Your task to perform on an android device: View the shopping cart on bestbuy.com. Add jbl charge 4 to the cart on bestbuy.com Image 0: 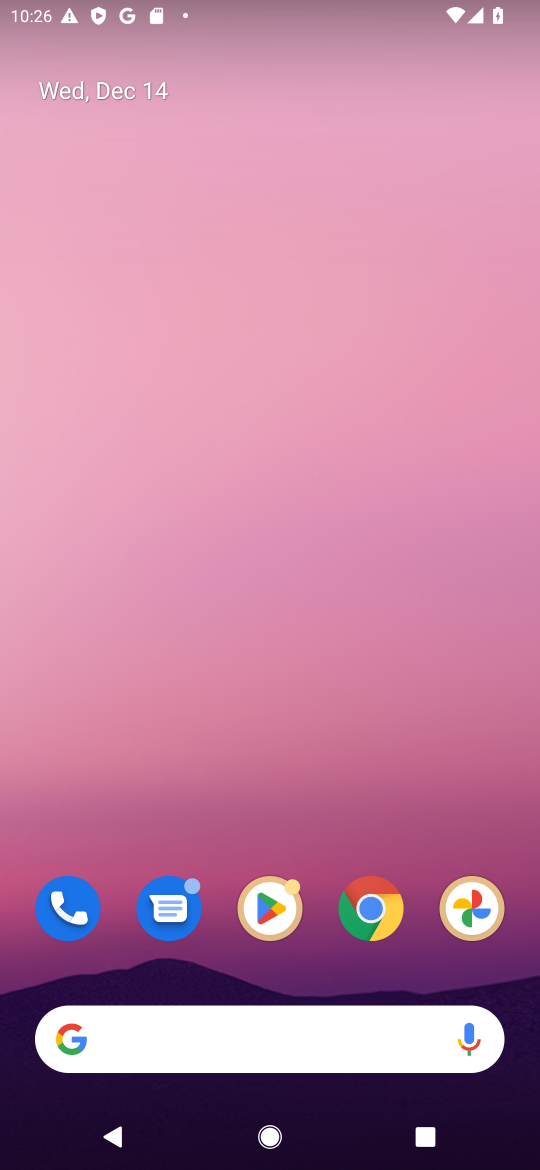
Step 0: click (356, 924)
Your task to perform on an android device: View the shopping cart on bestbuy.com. Add jbl charge 4 to the cart on bestbuy.com Image 1: 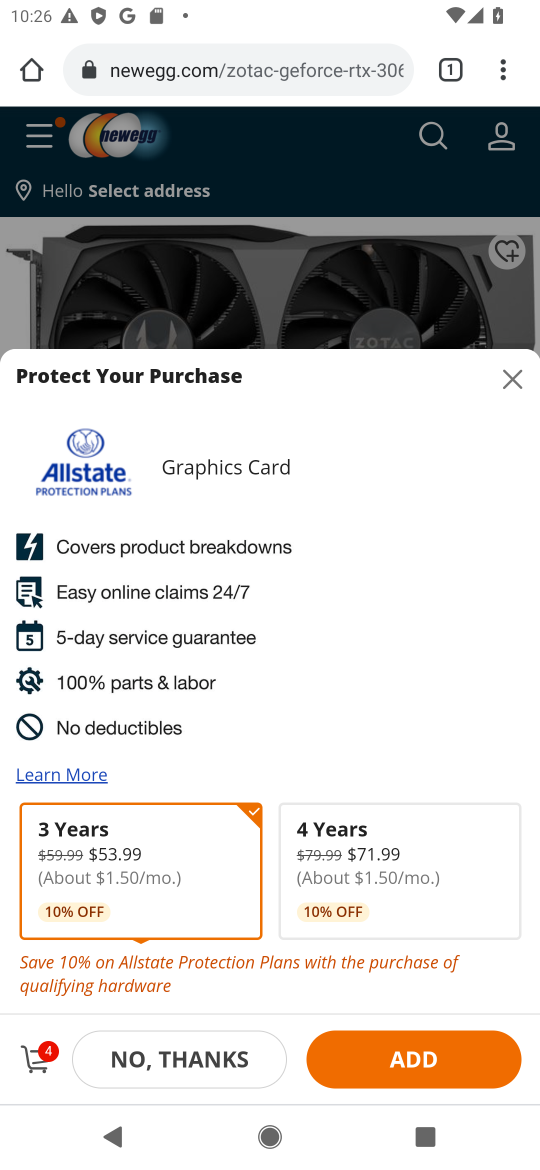
Step 1: click (202, 70)
Your task to perform on an android device: View the shopping cart on bestbuy.com. Add jbl charge 4 to the cart on bestbuy.com Image 2: 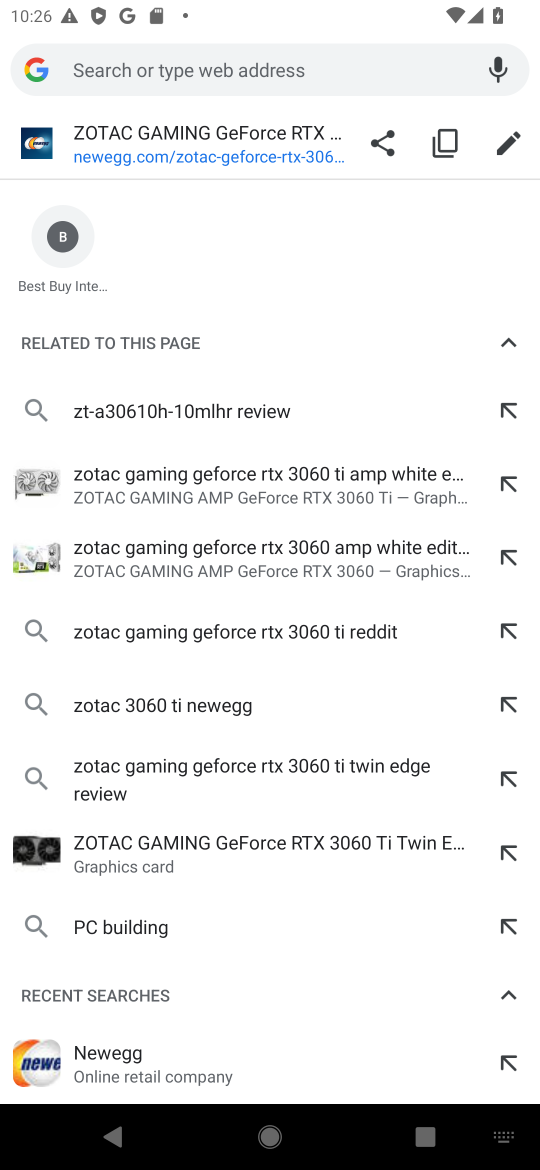
Step 2: type "bestbuy"
Your task to perform on an android device: View the shopping cart on bestbuy.com. Add jbl charge 4 to the cart on bestbuy.com Image 3: 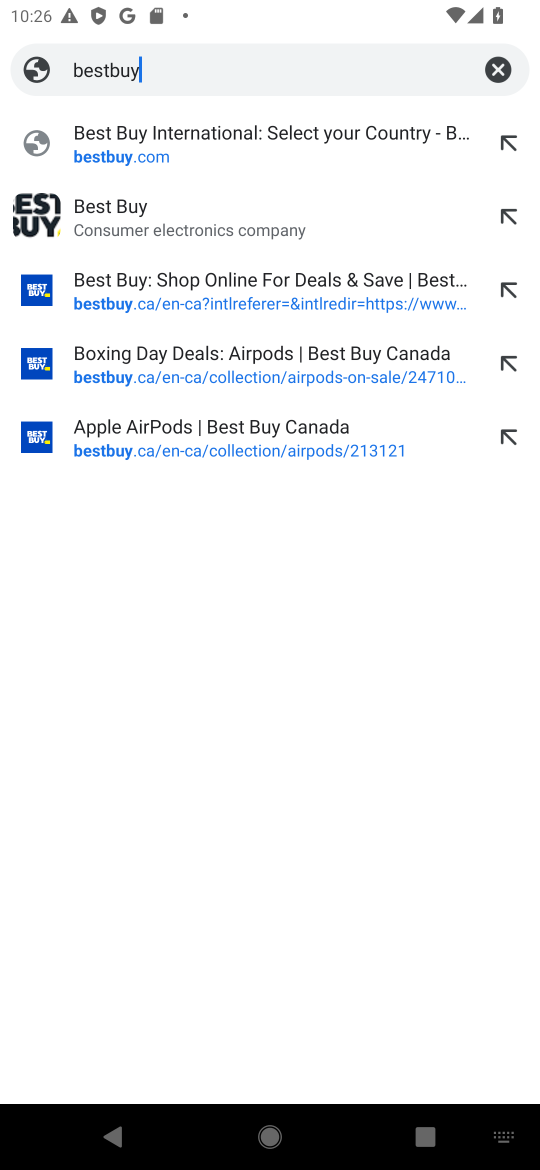
Step 3: click (148, 161)
Your task to perform on an android device: View the shopping cart on bestbuy.com. Add jbl charge 4 to the cart on bestbuy.com Image 4: 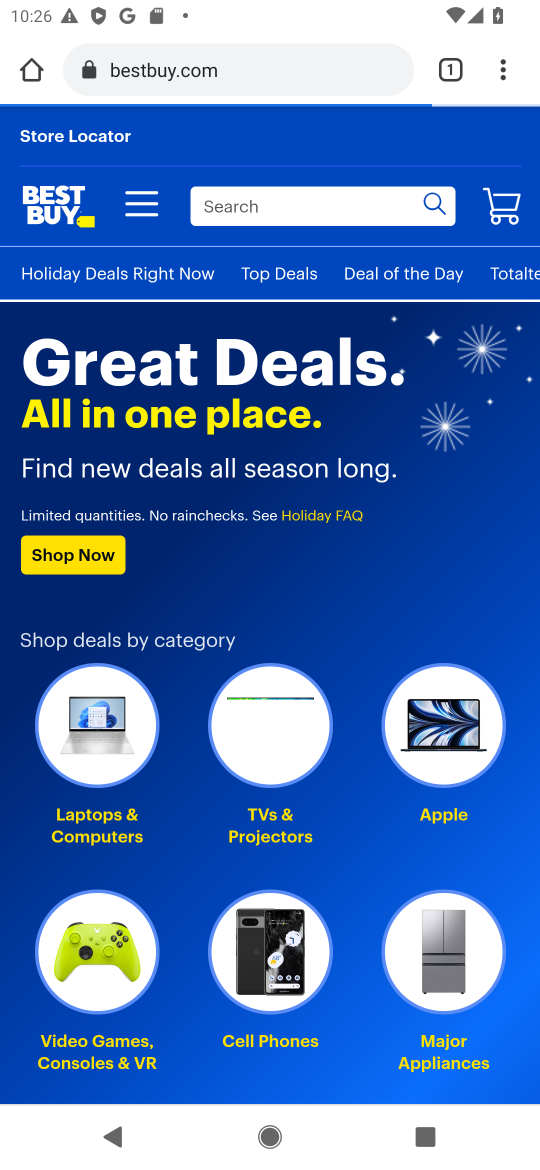
Step 4: click (309, 220)
Your task to perform on an android device: View the shopping cart on bestbuy.com. Add jbl charge 4 to the cart on bestbuy.com Image 5: 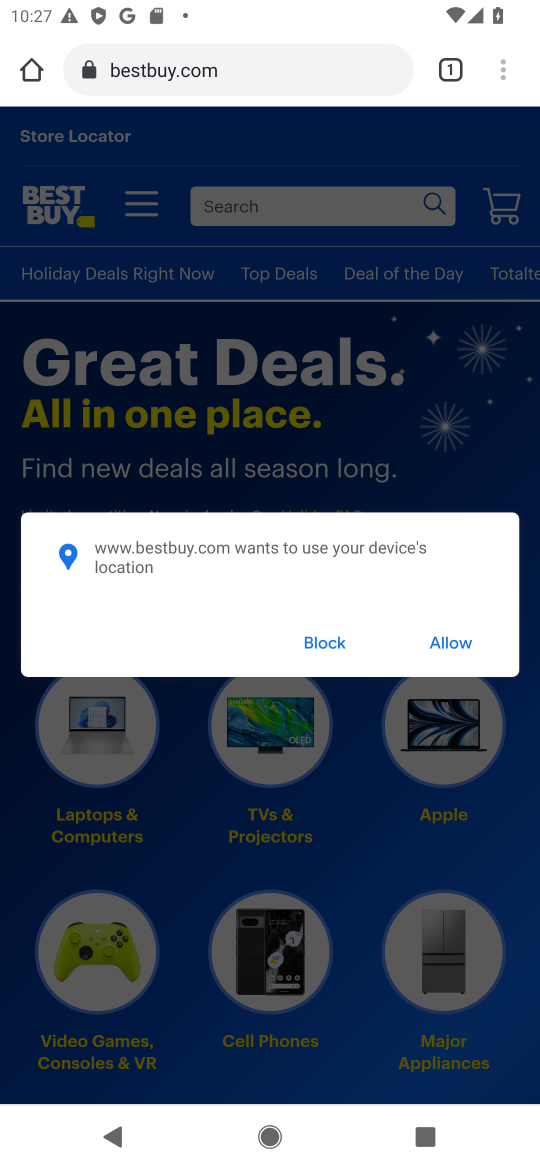
Step 5: type "jbl charge 4"
Your task to perform on an android device: View the shopping cart on bestbuy.com. Add jbl charge 4 to the cart on bestbuy.com Image 6: 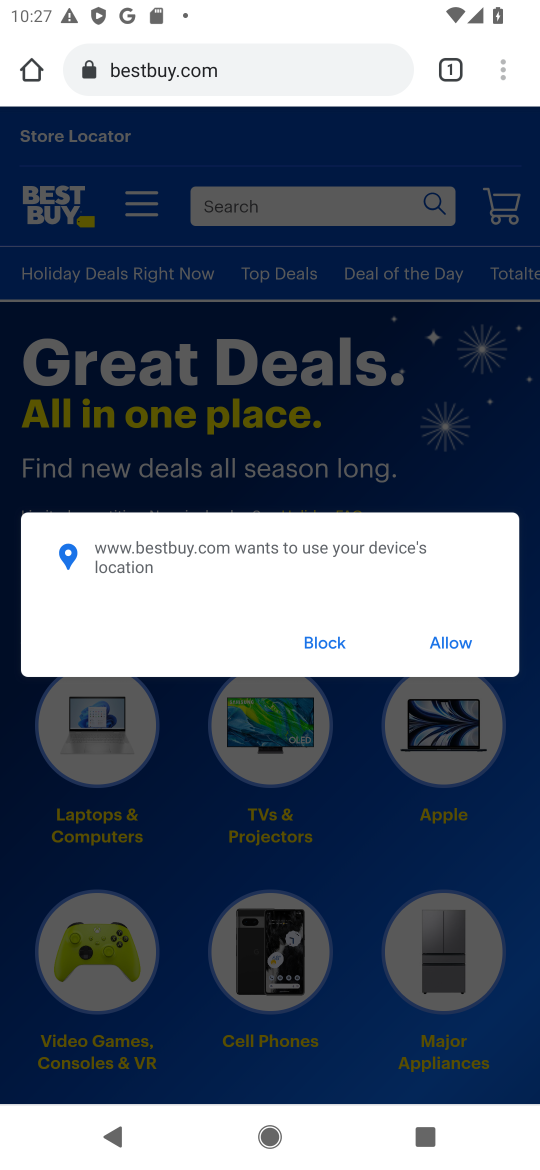
Step 6: click (450, 657)
Your task to perform on an android device: View the shopping cart on bestbuy.com. Add jbl charge 4 to the cart on bestbuy.com Image 7: 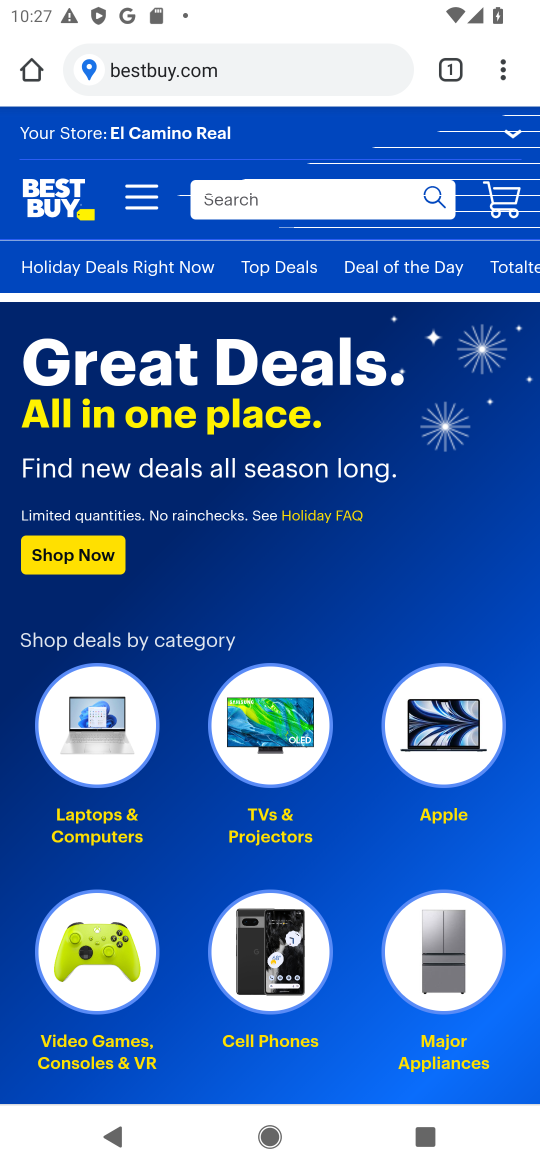
Step 7: click (250, 198)
Your task to perform on an android device: View the shopping cart on bestbuy.com. Add jbl charge 4 to the cart on bestbuy.com Image 8: 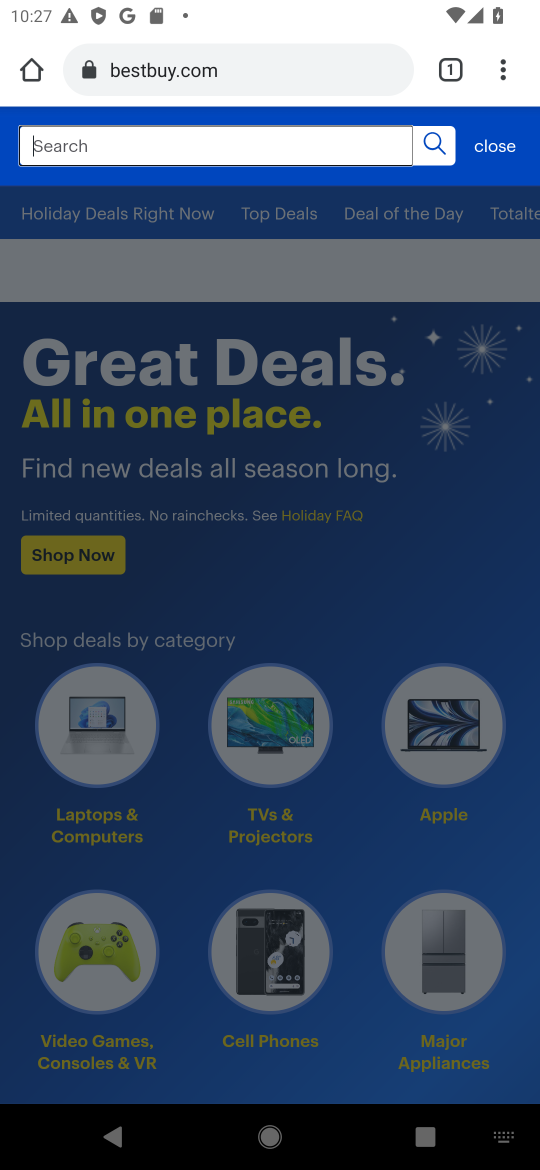
Step 8: type "jbl charge 4"
Your task to perform on an android device: View the shopping cart on bestbuy.com. Add jbl charge 4 to the cart on bestbuy.com Image 9: 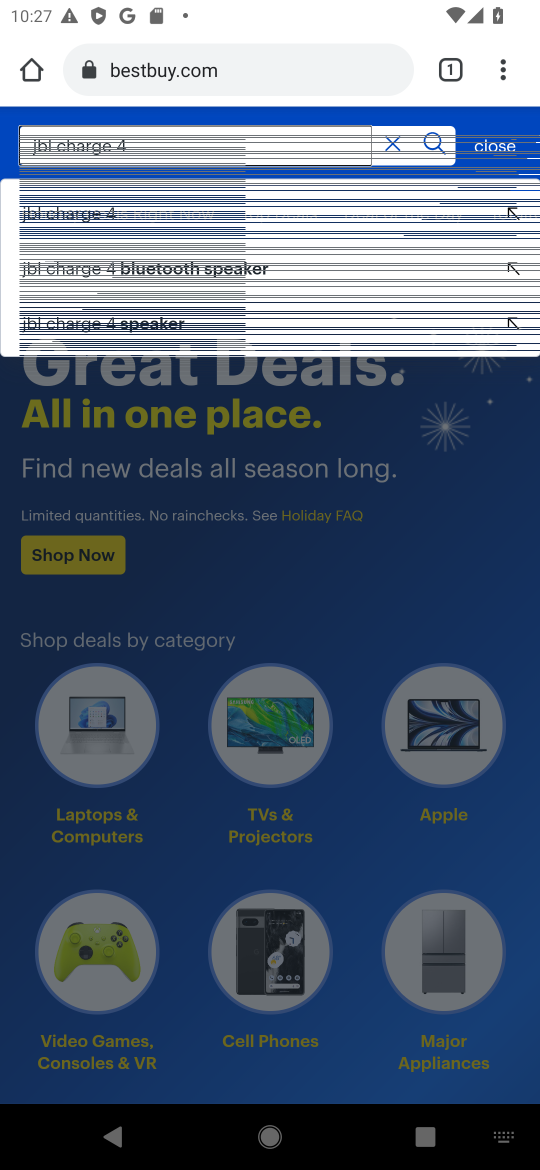
Step 9: click (123, 225)
Your task to perform on an android device: View the shopping cart on bestbuy.com. Add jbl charge 4 to the cart on bestbuy.com Image 10: 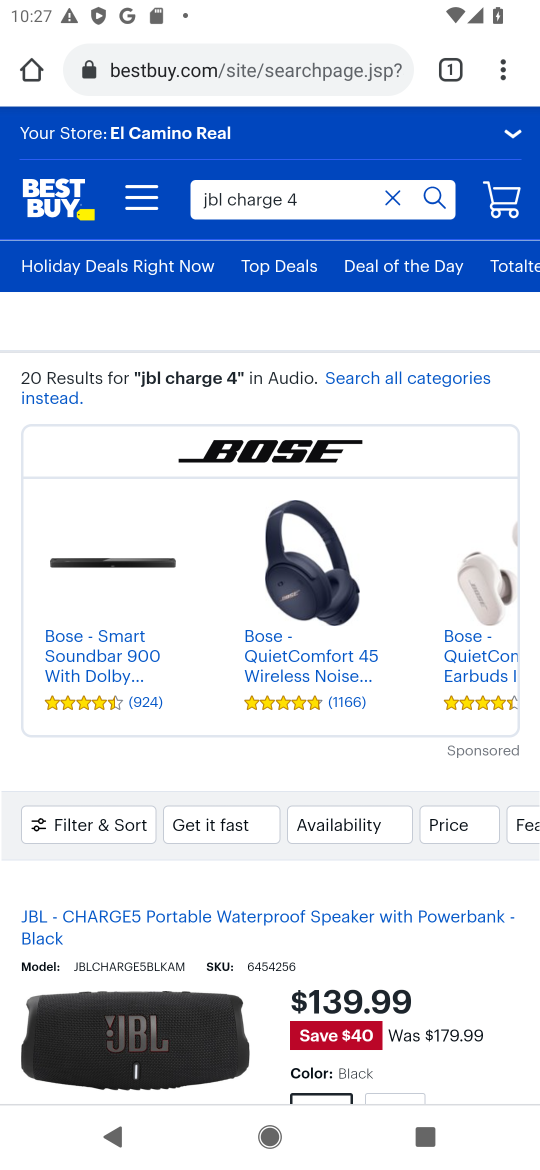
Step 10: click (319, 1006)
Your task to perform on an android device: View the shopping cart on bestbuy.com. Add jbl charge 4 to the cart on bestbuy.com Image 11: 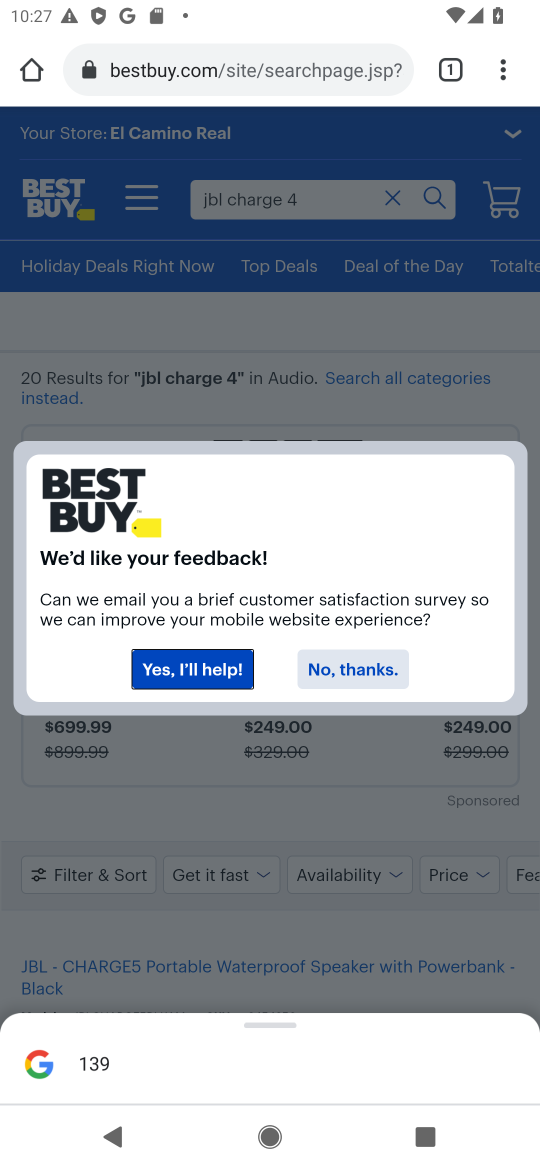
Step 11: click (311, 676)
Your task to perform on an android device: View the shopping cart on bestbuy.com. Add jbl charge 4 to the cart on bestbuy.com Image 12: 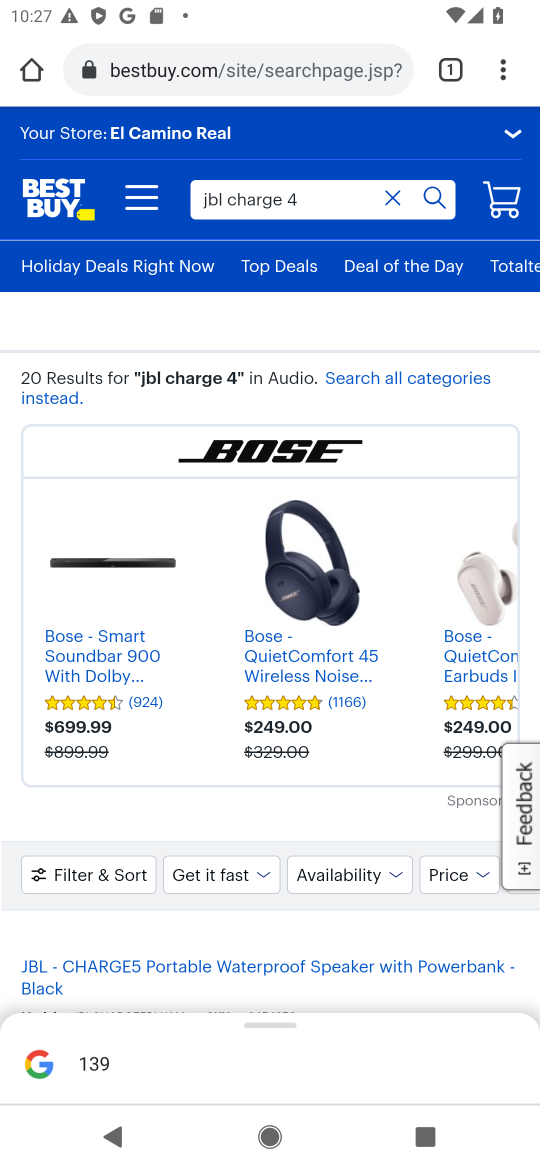
Step 12: drag from (174, 941) to (164, 163)
Your task to perform on an android device: View the shopping cart on bestbuy.com. Add jbl charge 4 to the cart on bestbuy.com Image 13: 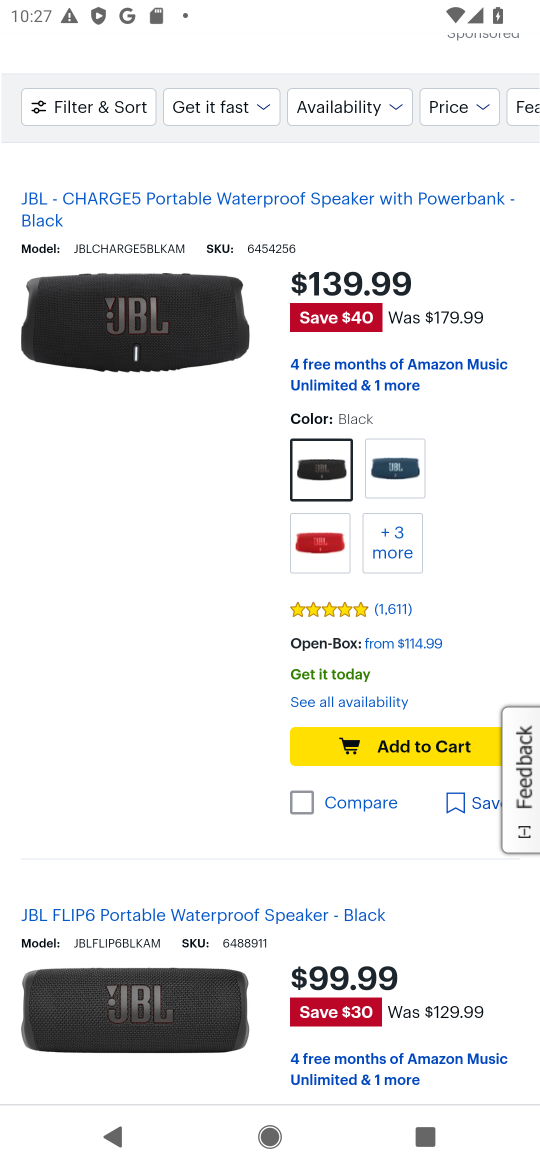
Step 13: click (422, 753)
Your task to perform on an android device: View the shopping cart on bestbuy.com. Add jbl charge 4 to the cart on bestbuy.com Image 14: 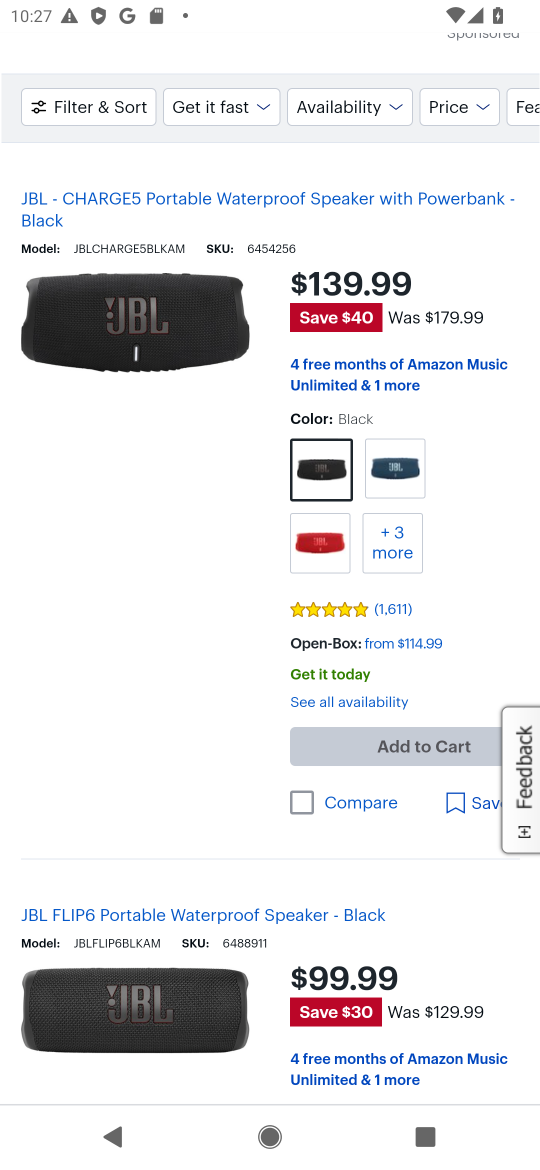
Step 14: task complete